Your task to perform on an android device: toggle javascript in the chrome app Image 0: 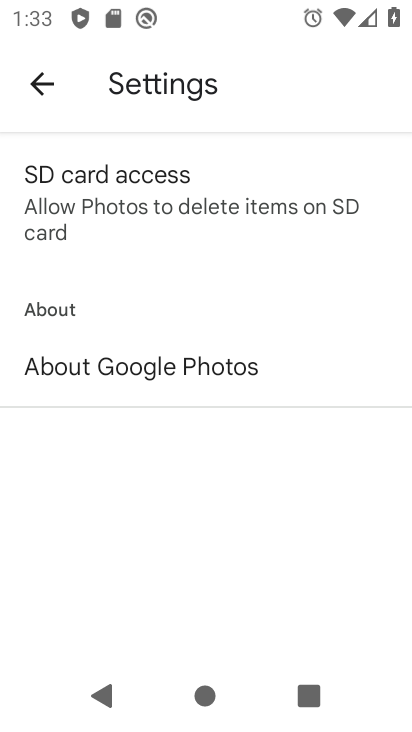
Step 0: press home button
Your task to perform on an android device: toggle javascript in the chrome app Image 1: 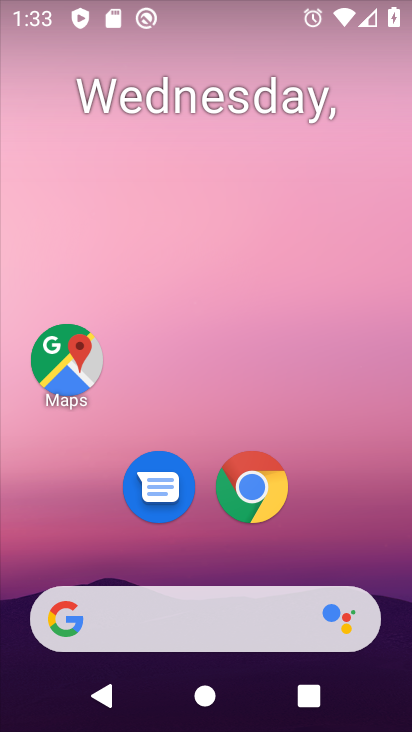
Step 1: drag from (399, 628) to (179, 62)
Your task to perform on an android device: toggle javascript in the chrome app Image 2: 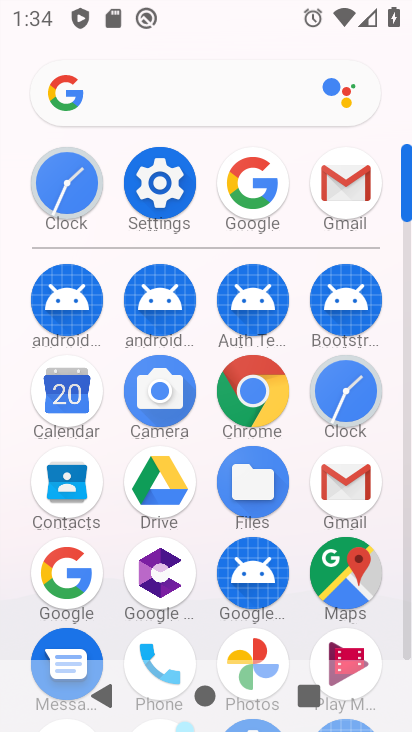
Step 2: click (267, 398)
Your task to perform on an android device: toggle javascript in the chrome app Image 3: 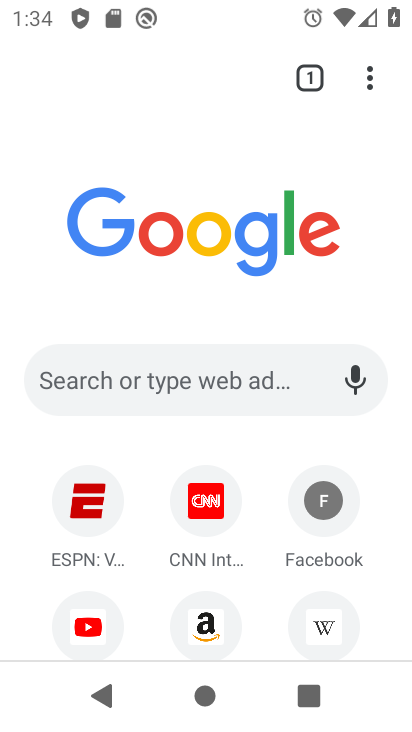
Step 3: click (372, 72)
Your task to perform on an android device: toggle javascript in the chrome app Image 4: 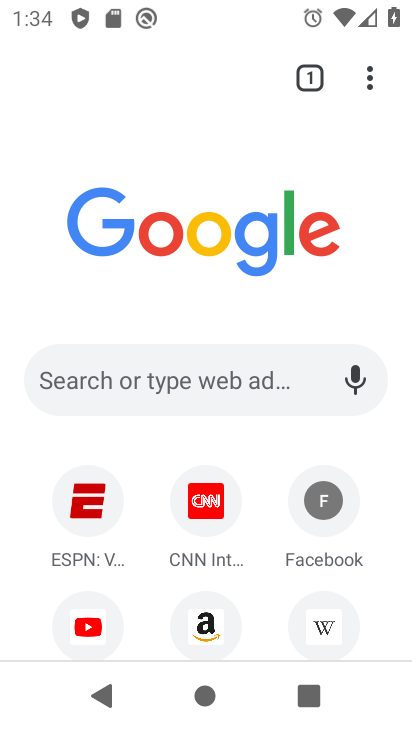
Step 4: click (372, 72)
Your task to perform on an android device: toggle javascript in the chrome app Image 5: 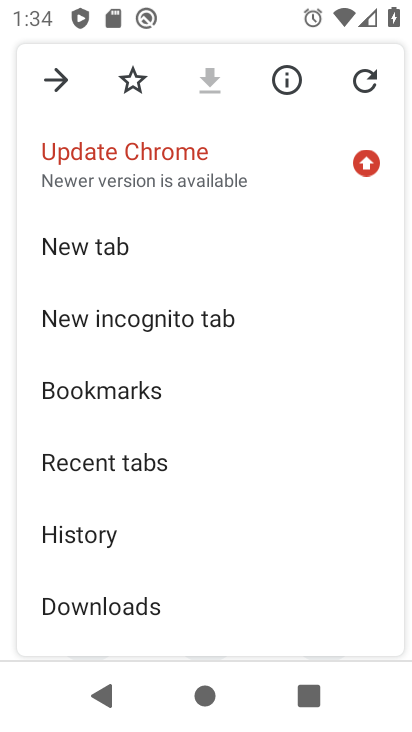
Step 5: drag from (202, 584) to (230, 145)
Your task to perform on an android device: toggle javascript in the chrome app Image 6: 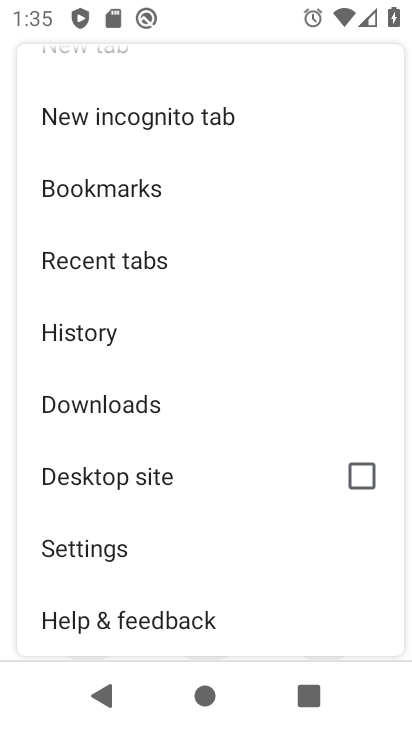
Step 6: click (182, 555)
Your task to perform on an android device: toggle javascript in the chrome app Image 7: 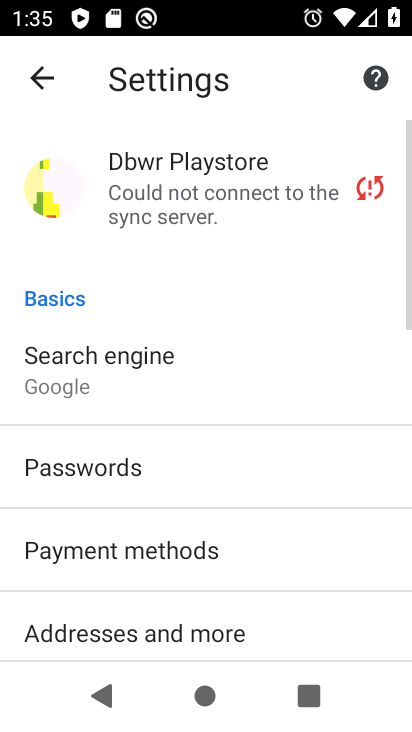
Step 7: drag from (144, 579) to (196, 147)
Your task to perform on an android device: toggle javascript in the chrome app Image 8: 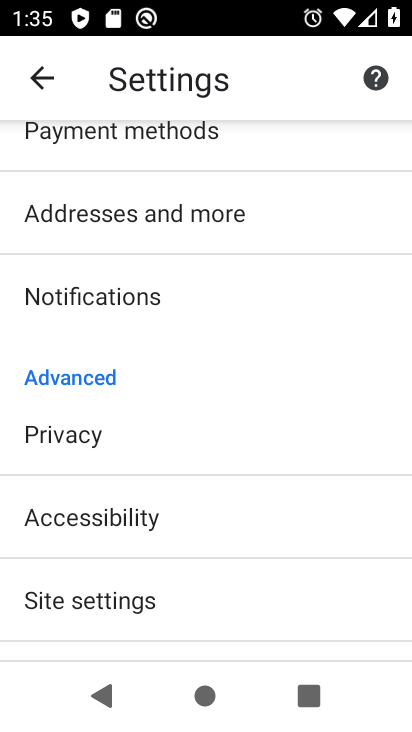
Step 8: click (130, 601)
Your task to perform on an android device: toggle javascript in the chrome app Image 9: 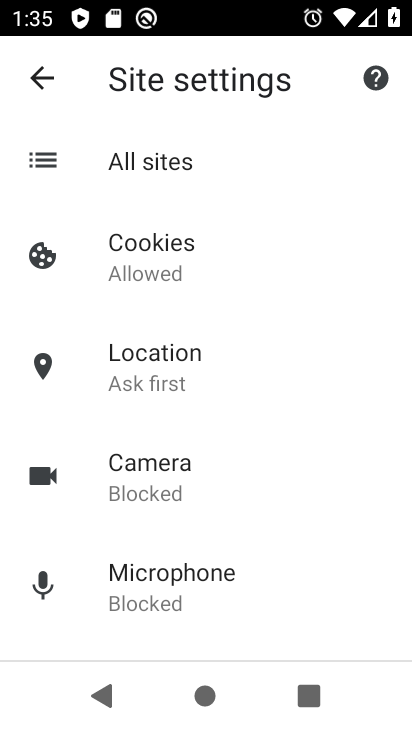
Step 9: drag from (159, 583) to (251, 219)
Your task to perform on an android device: toggle javascript in the chrome app Image 10: 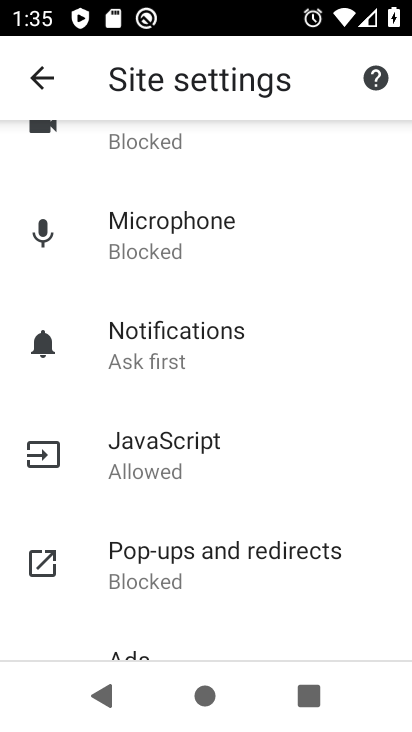
Step 10: click (225, 441)
Your task to perform on an android device: toggle javascript in the chrome app Image 11: 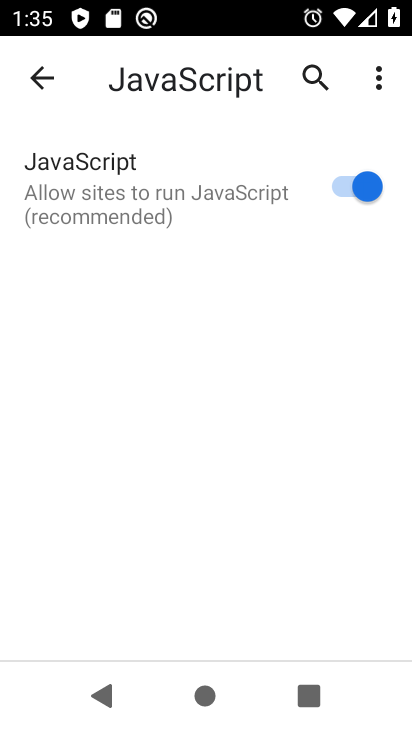
Step 11: click (277, 183)
Your task to perform on an android device: toggle javascript in the chrome app Image 12: 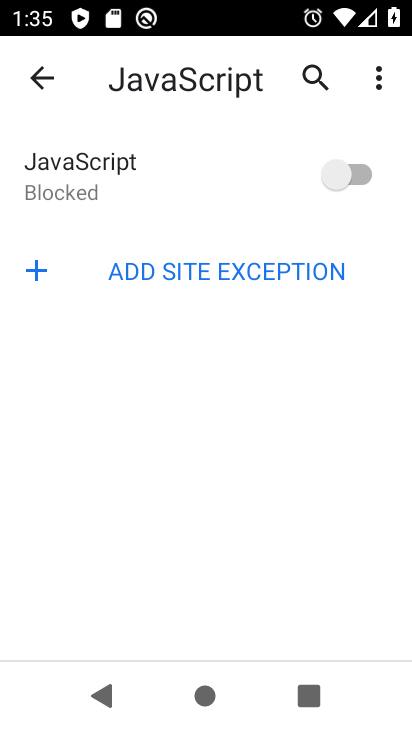
Step 12: task complete